Your task to perform on an android device: delete the emails in spam in the gmail app Image 0: 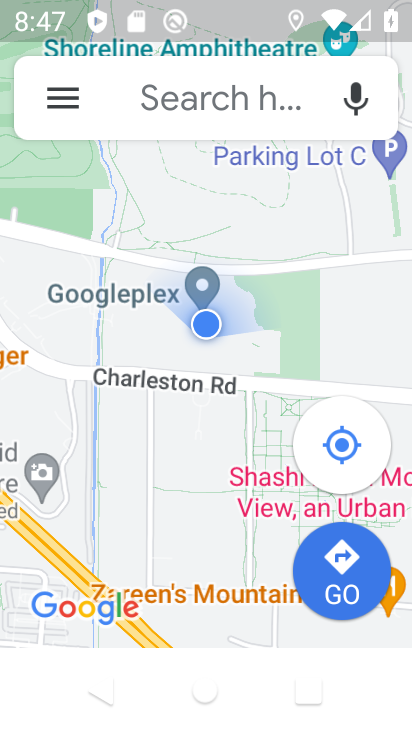
Step 0: press home button
Your task to perform on an android device: delete the emails in spam in the gmail app Image 1: 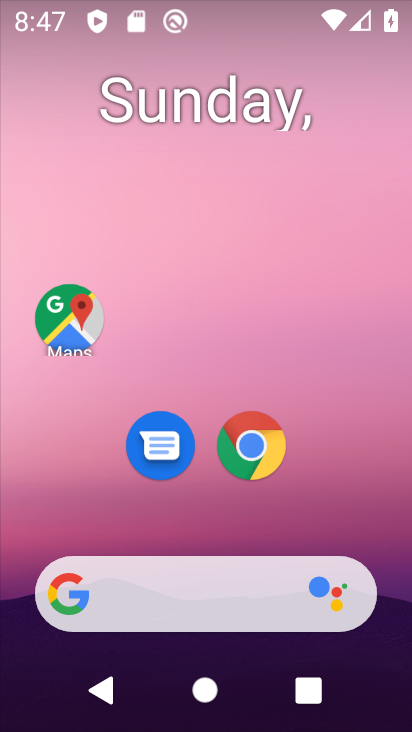
Step 1: drag from (181, 527) to (206, 212)
Your task to perform on an android device: delete the emails in spam in the gmail app Image 2: 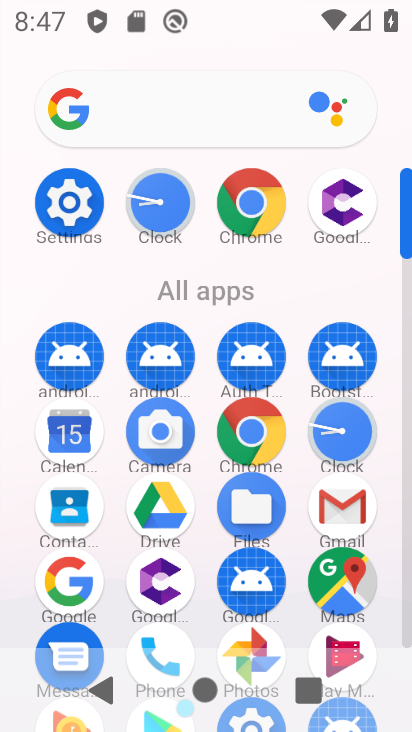
Step 2: click (340, 521)
Your task to perform on an android device: delete the emails in spam in the gmail app Image 3: 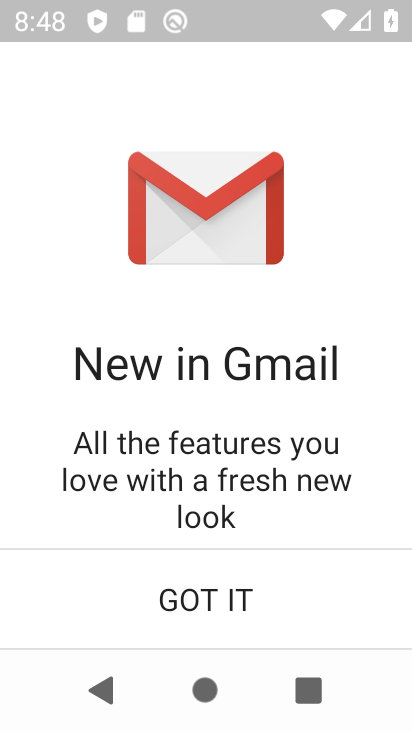
Step 3: click (269, 593)
Your task to perform on an android device: delete the emails in spam in the gmail app Image 4: 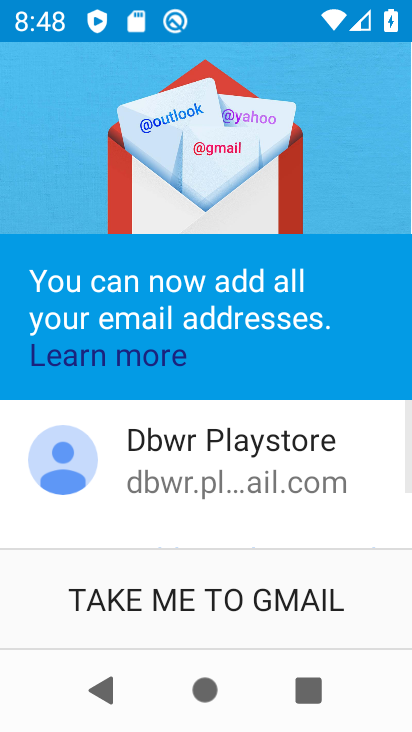
Step 4: click (269, 593)
Your task to perform on an android device: delete the emails in spam in the gmail app Image 5: 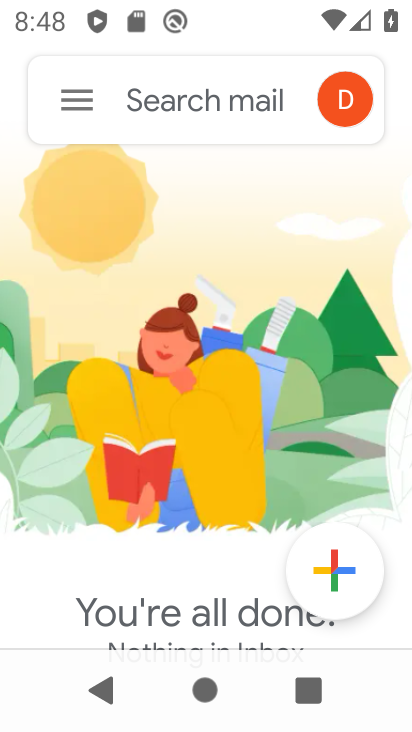
Step 5: click (63, 92)
Your task to perform on an android device: delete the emails in spam in the gmail app Image 6: 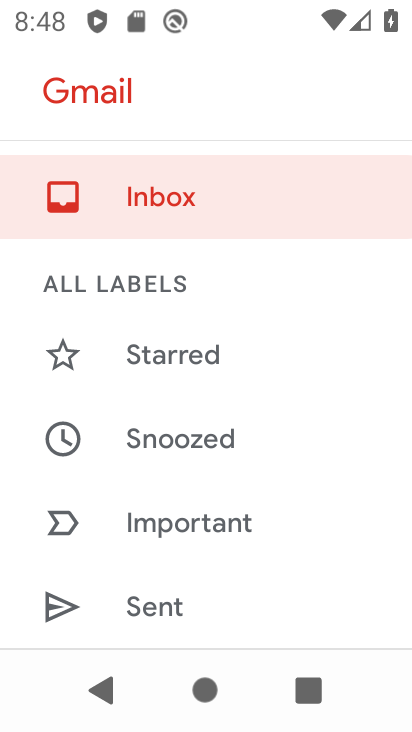
Step 6: drag from (219, 564) to (228, 238)
Your task to perform on an android device: delete the emails in spam in the gmail app Image 7: 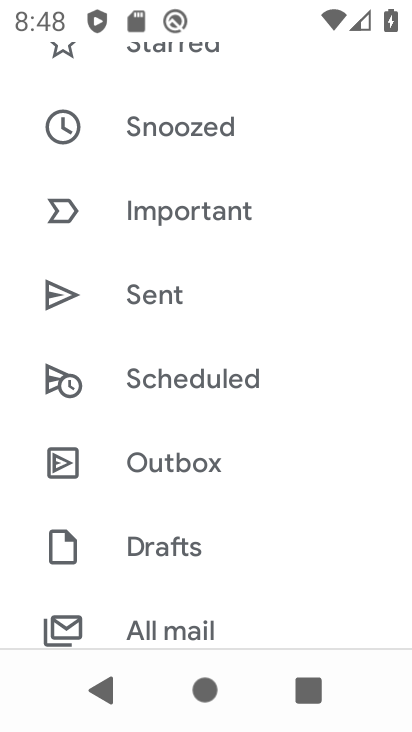
Step 7: drag from (232, 471) to (255, 160)
Your task to perform on an android device: delete the emails in spam in the gmail app Image 8: 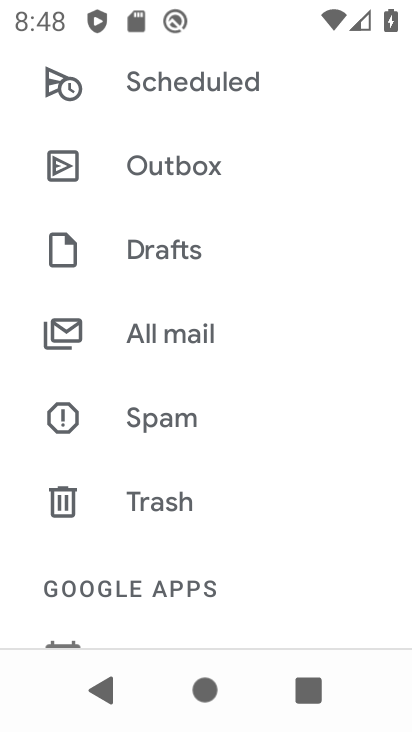
Step 8: click (220, 410)
Your task to perform on an android device: delete the emails in spam in the gmail app Image 9: 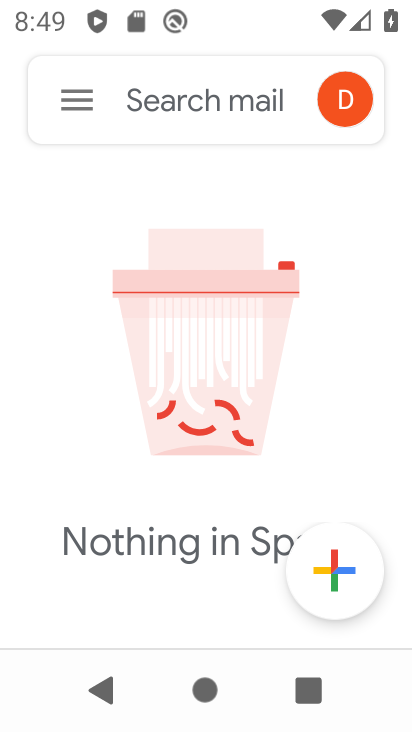
Step 9: task complete